Your task to perform on an android device: Go to location settings Image 0: 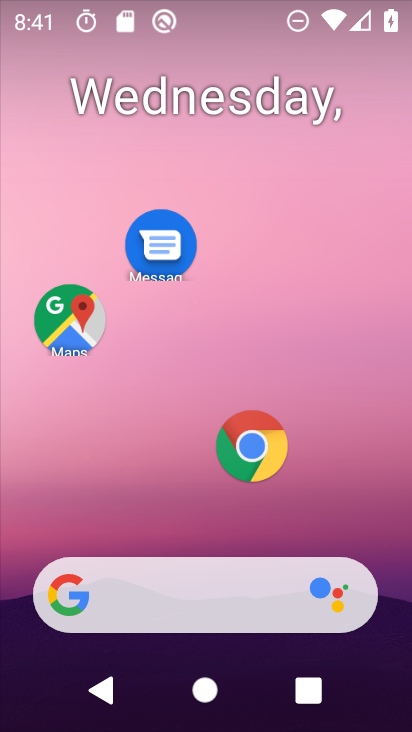
Step 0: drag from (205, 486) to (208, 63)
Your task to perform on an android device: Go to location settings Image 1: 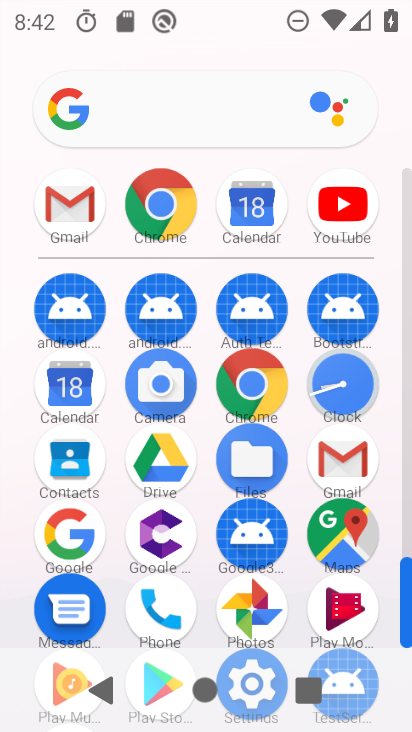
Step 1: drag from (203, 566) to (213, 202)
Your task to perform on an android device: Go to location settings Image 2: 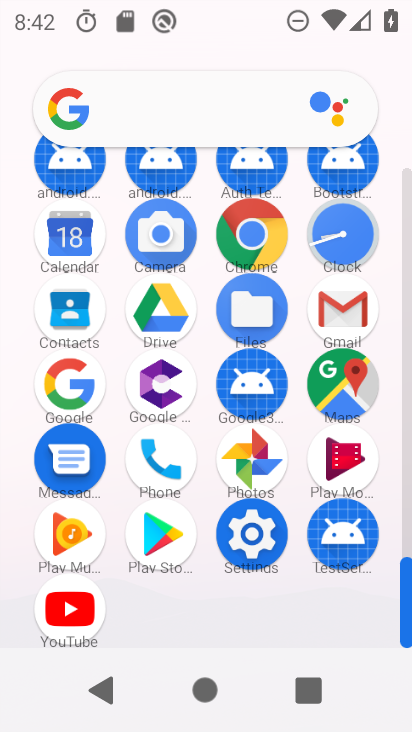
Step 2: click (249, 524)
Your task to perform on an android device: Go to location settings Image 3: 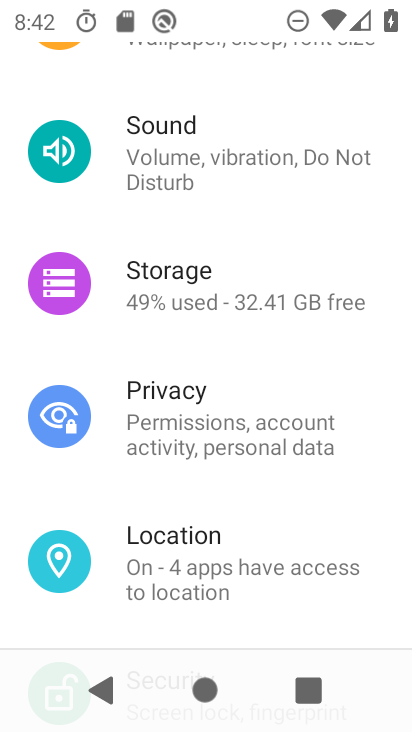
Step 3: click (229, 541)
Your task to perform on an android device: Go to location settings Image 4: 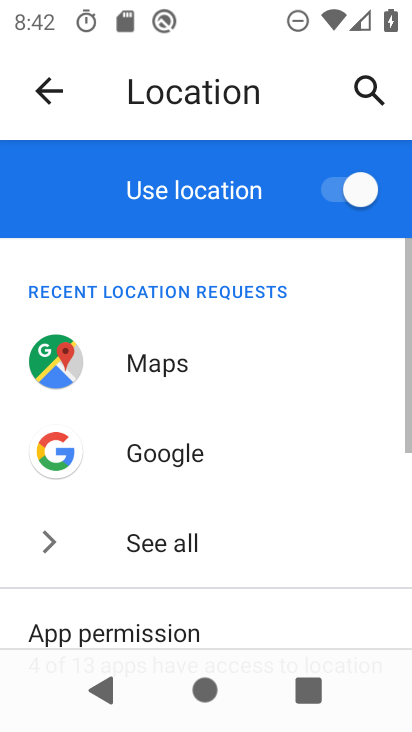
Step 4: drag from (239, 626) to (238, 246)
Your task to perform on an android device: Go to location settings Image 5: 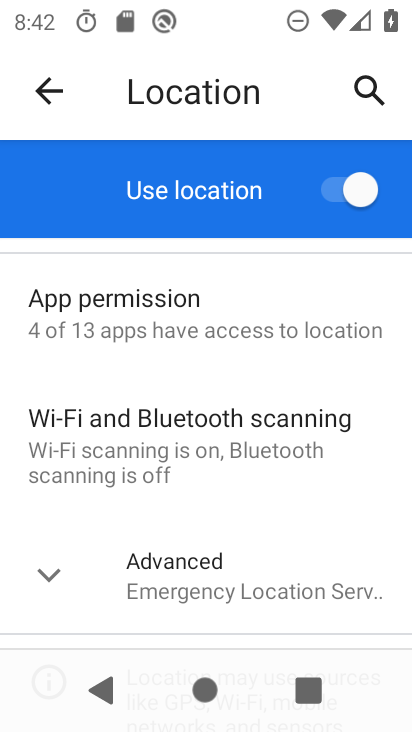
Step 5: click (51, 566)
Your task to perform on an android device: Go to location settings Image 6: 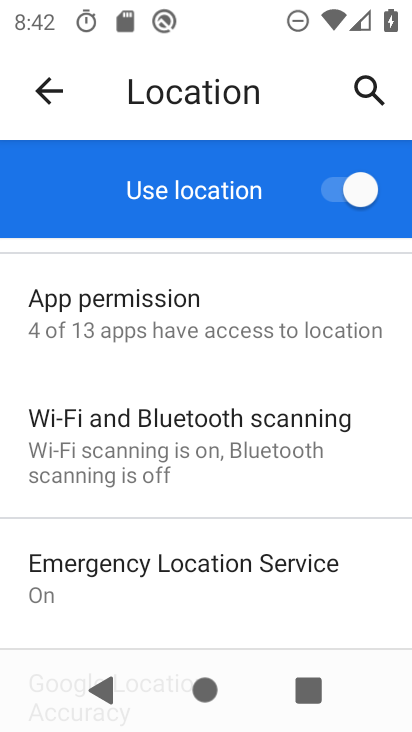
Step 6: task complete